Your task to perform on an android device: Go to Yahoo.com Image 0: 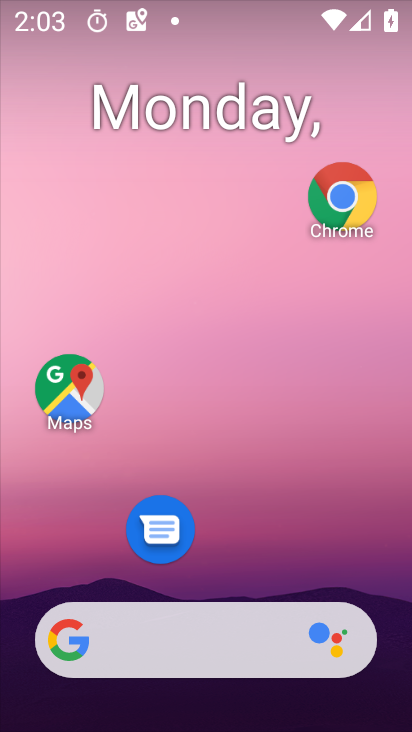
Step 0: drag from (233, 585) to (143, 22)
Your task to perform on an android device: Go to Yahoo.com Image 1: 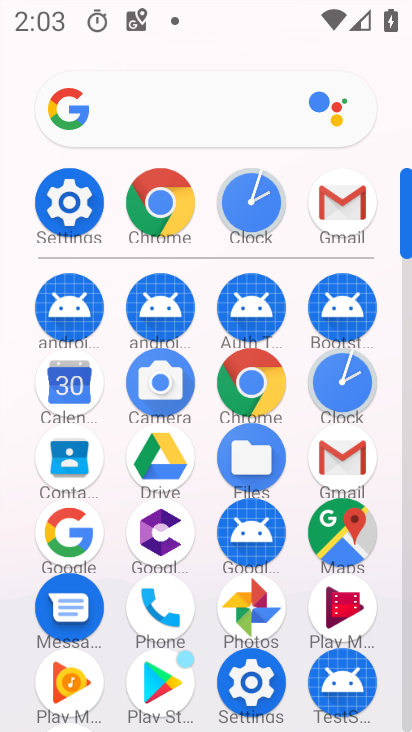
Step 1: click (151, 197)
Your task to perform on an android device: Go to Yahoo.com Image 2: 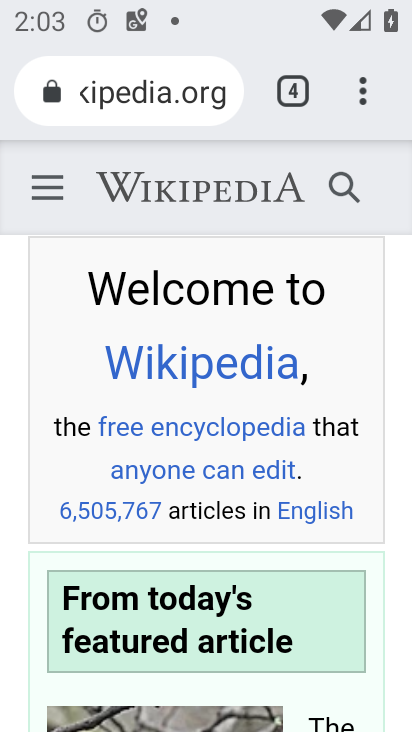
Step 2: click (298, 94)
Your task to perform on an android device: Go to Yahoo.com Image 3: 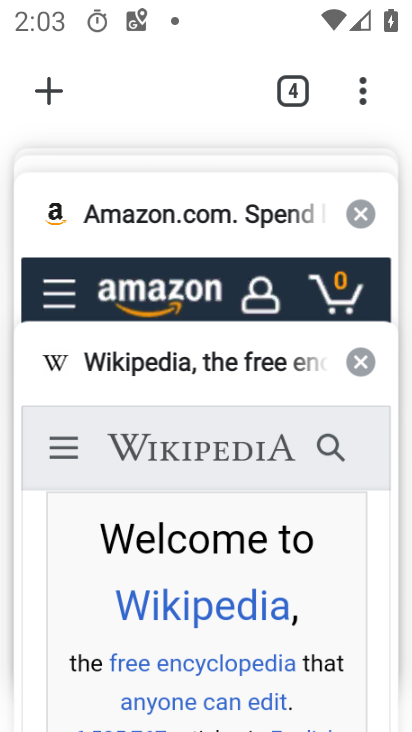
Step 3: click (32, 78)
Your task to perform on an android device: Go to Yahoo.com Image 4: 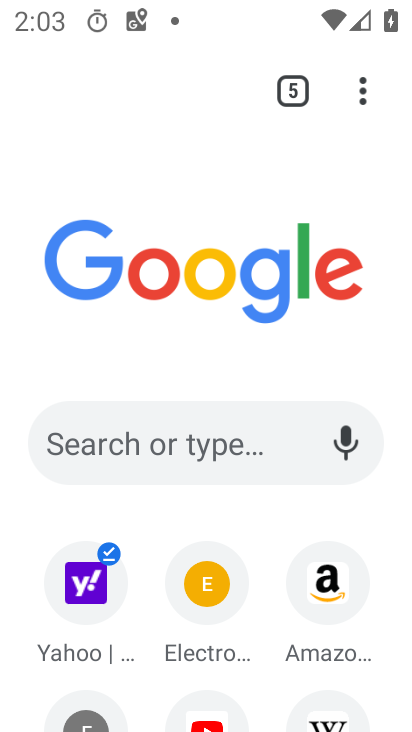
Step 4: click (87, 594)
Your task to perform on an android device: Go to Yahoo.com Image 5: 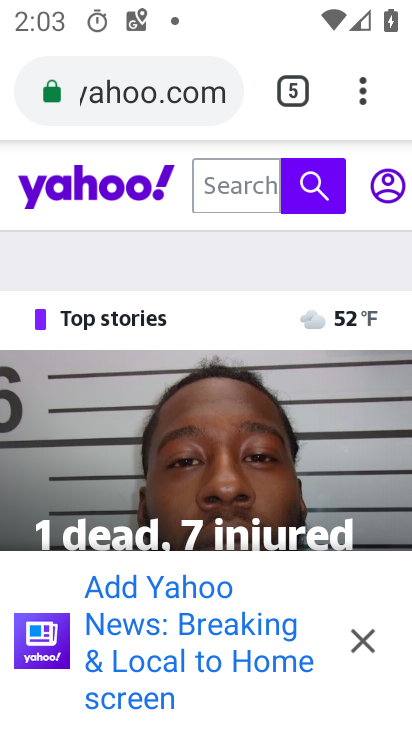
Step 5: task complete